Your task to perform on an android device: Empty the shopping cart on walmart. Add "acer nitro" to the cart on walmart, then select checkout. Image 0: 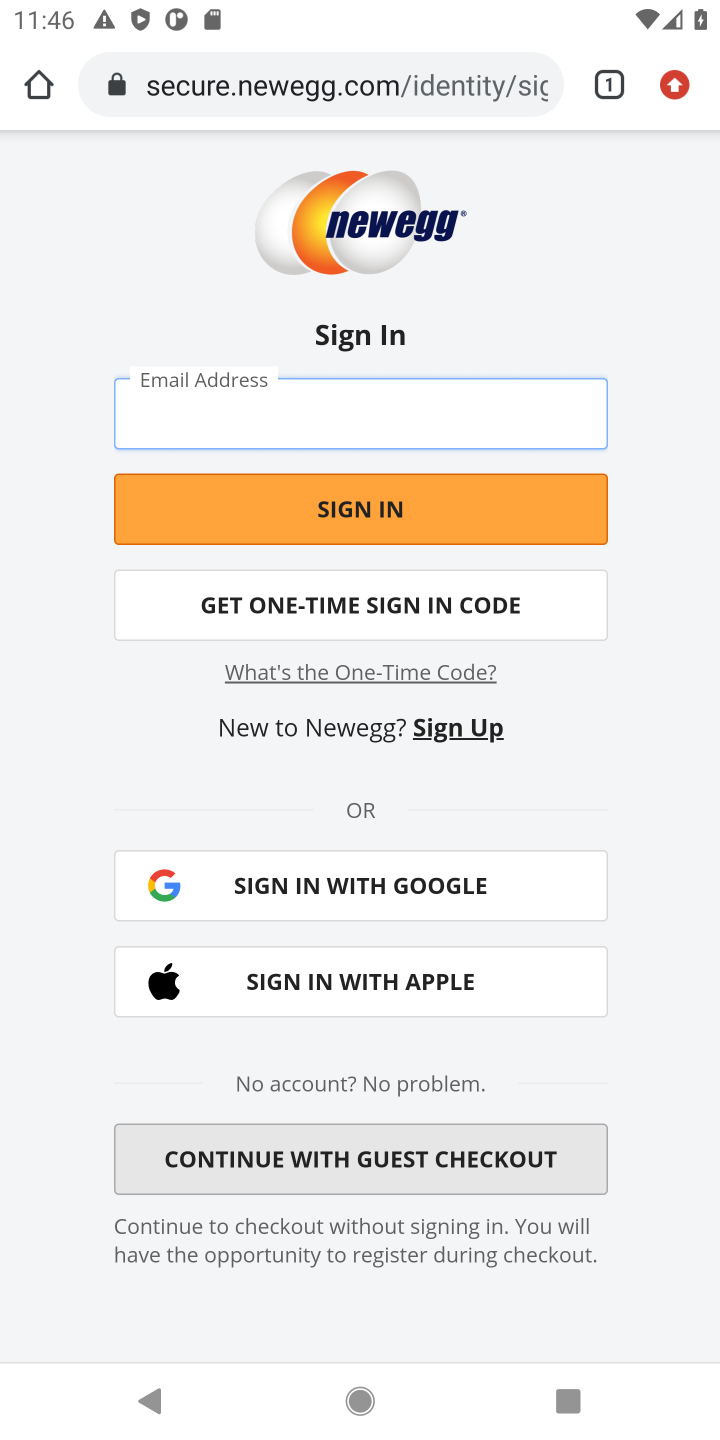
Step 0: press home button
Your task to perform on an android device: Empty the shopping cart on walmart. Add "acer nitro" to the cart on walmart, then select checkout. Image 1: 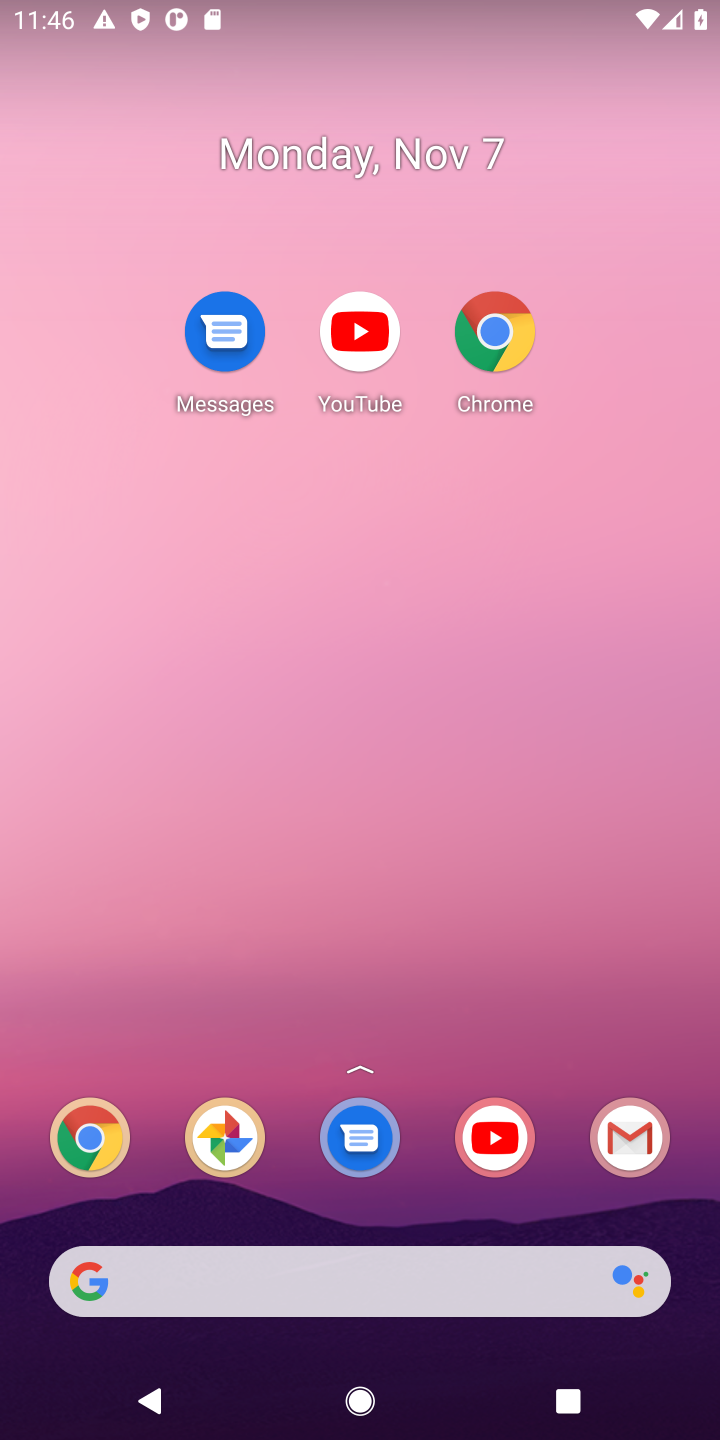
Step 1: drag from (421, 1194) to (327, 240)
Your task to perform on an android device: Empty the shopping cart on walmart. Add "acer nitro" to the cart on walmart, then select checkout. Image 2: 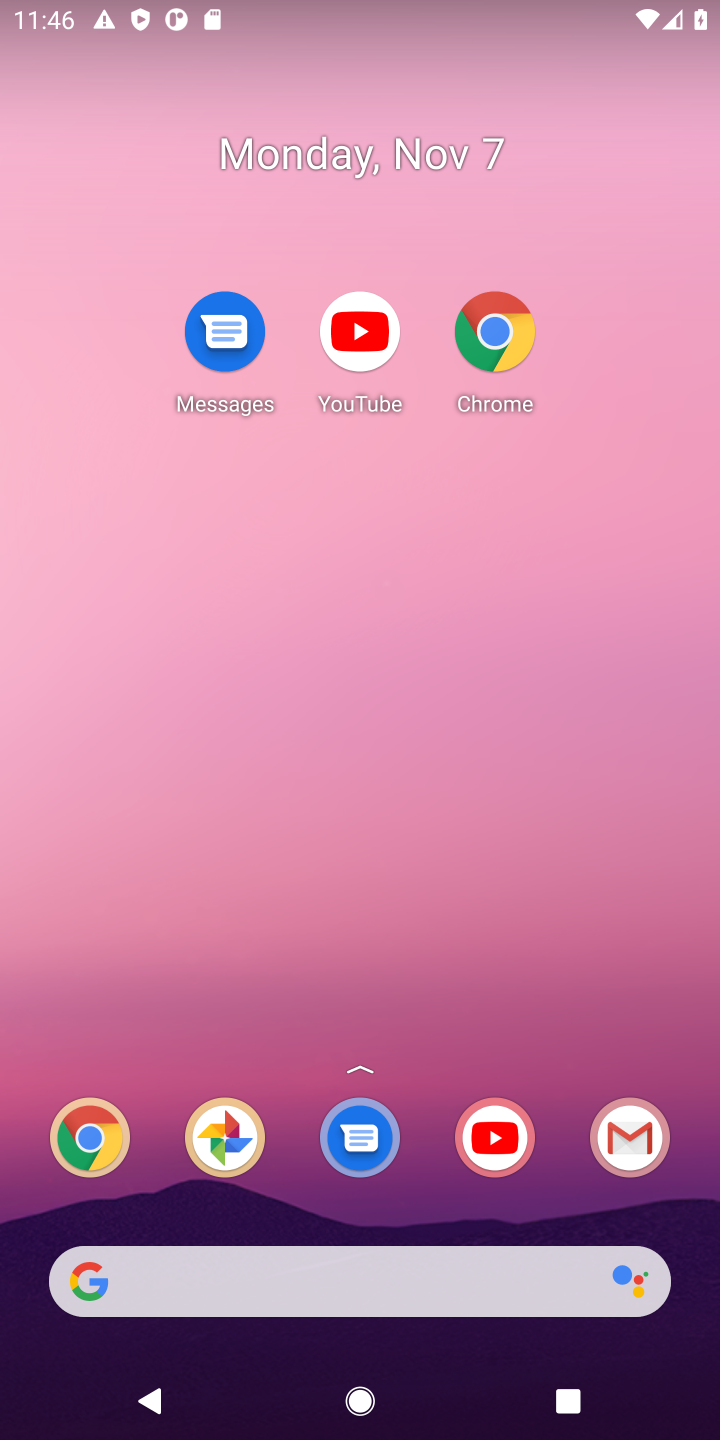
Step 2: drag from (418, 1199) to (529, 429)
Your task to perform on an android device: Empty the shopping cart on walmart. Add "acer nitro" to the cart on walmart, then select checkout. Image 3: 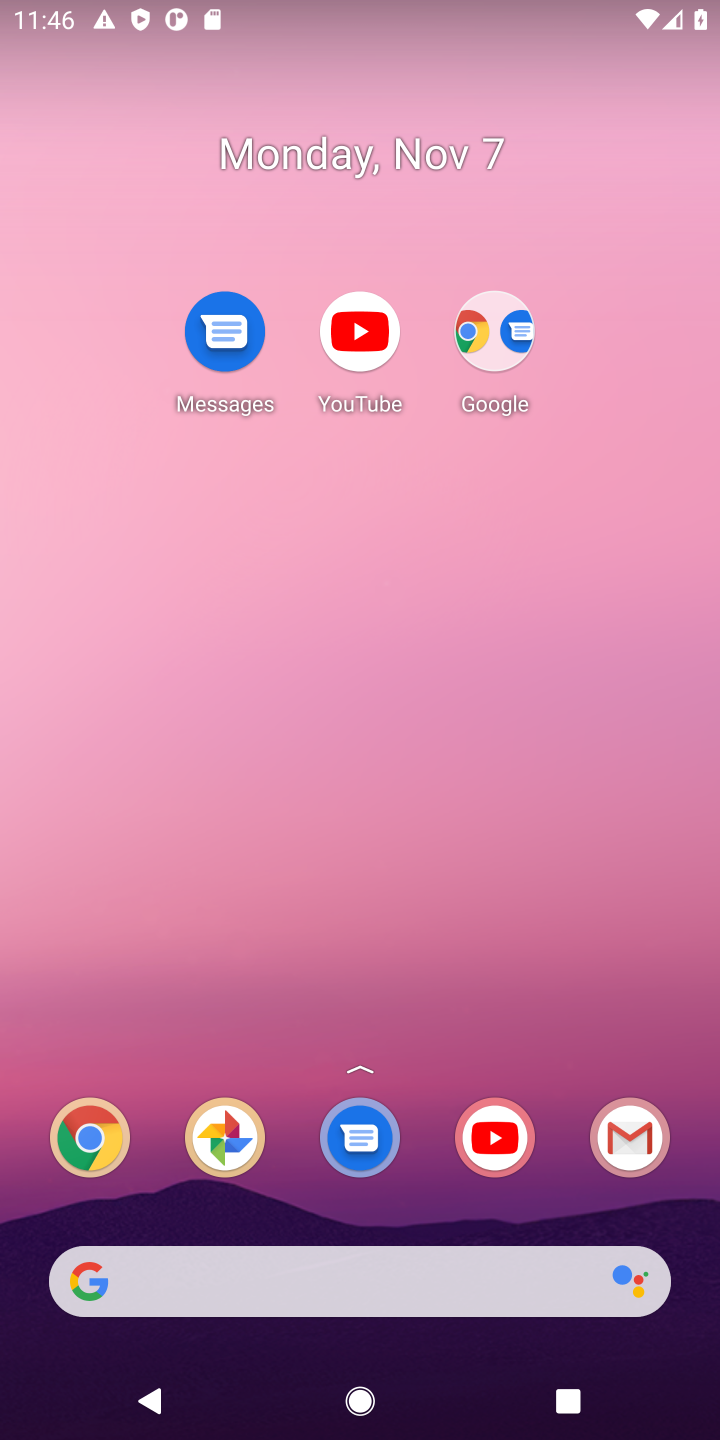
Step 3: drag from (369, 1245) to (400, 411)
Your task to perform on an android device: Empty the shopping cart on walmart. Add "acer nitro" to the cart on walmart, then select checkout. Image 4: 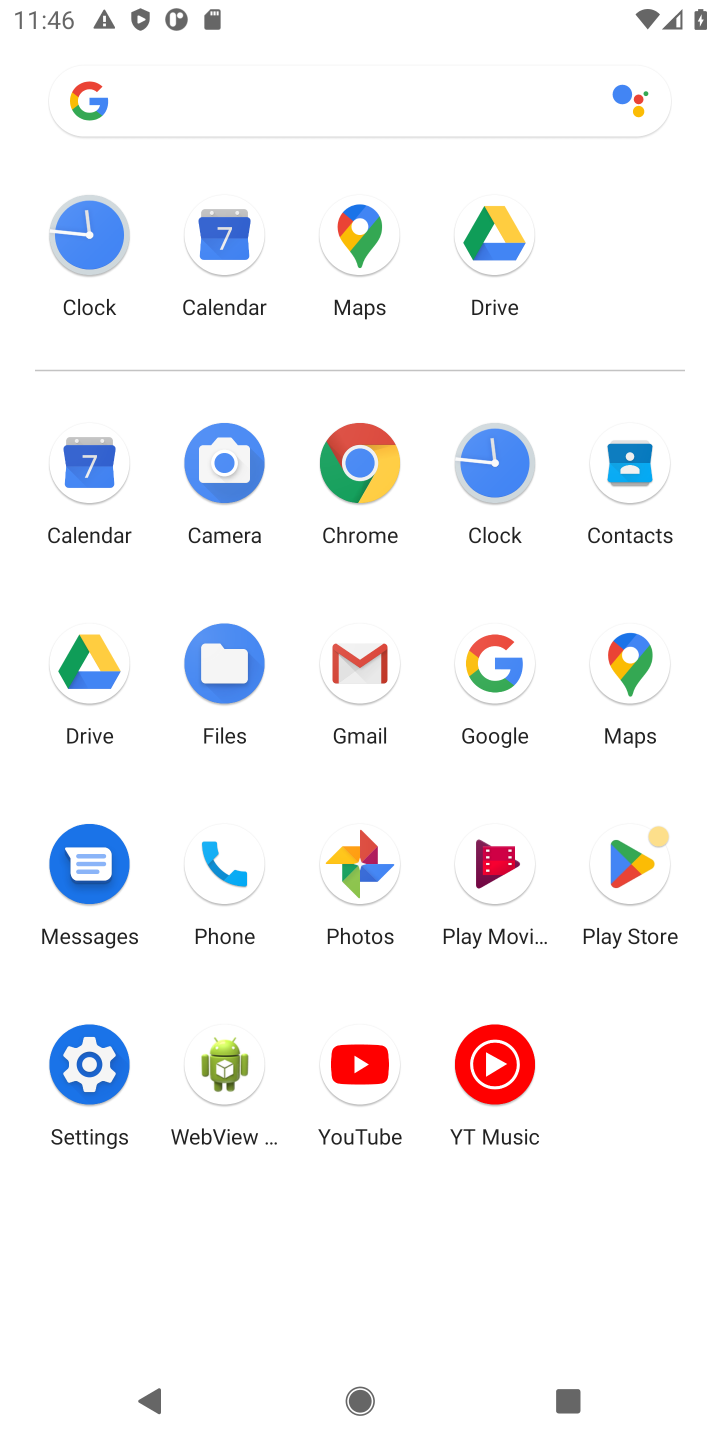
Step 4: click (367, 463)
Your task to perform on an android device: Empty the shopping cart on walmart. Add "acer nitro" to the cart on walmart, then select checkout. Image 5: 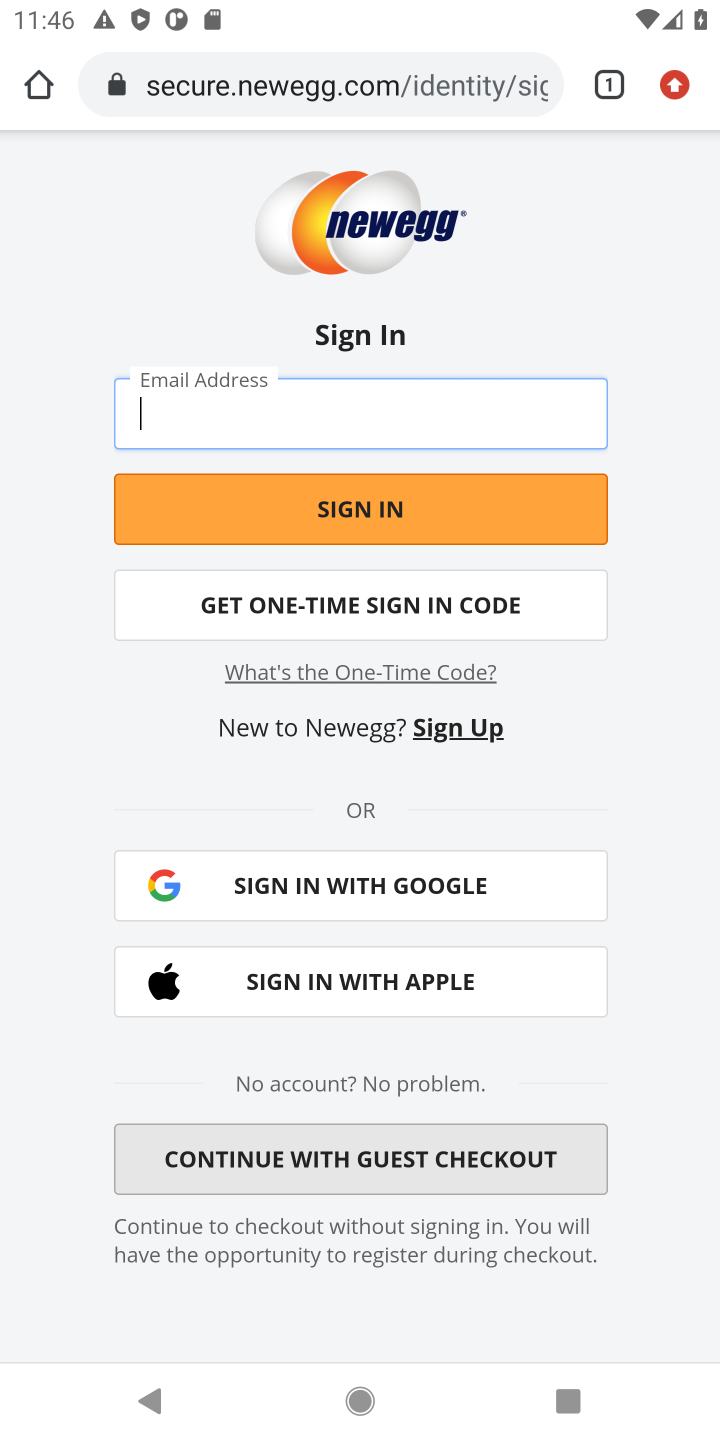
Step 5: click (347, 76)
Your task to perform on an android device: Empty the shopping cart on walmart. Add "acer nitro" to the cart on walmart, then select checkout. Image 6: 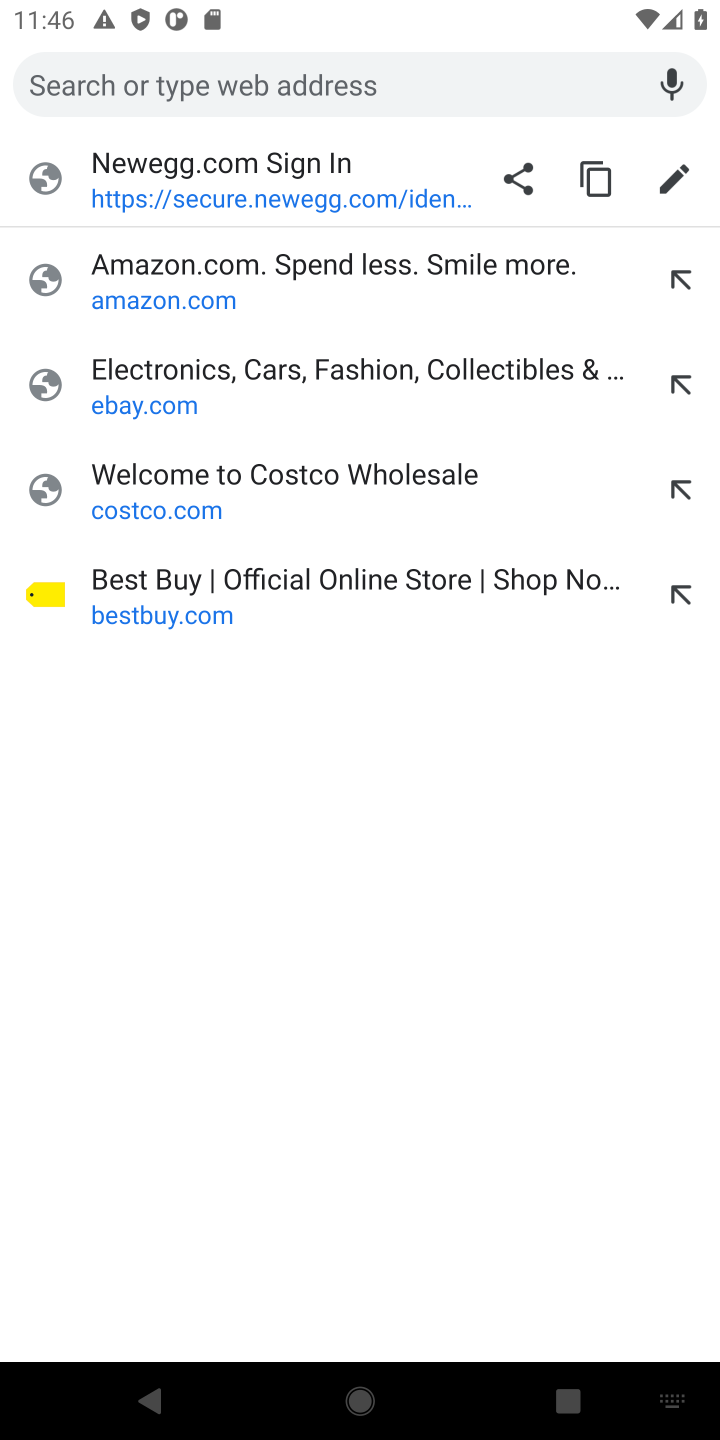
Step 6: type "walmart.com"
Your task to perform on an android device: Empty the shopping cart on walmart. Add "acer nitro" to the cart on walmart, then select checkout. Image 7: 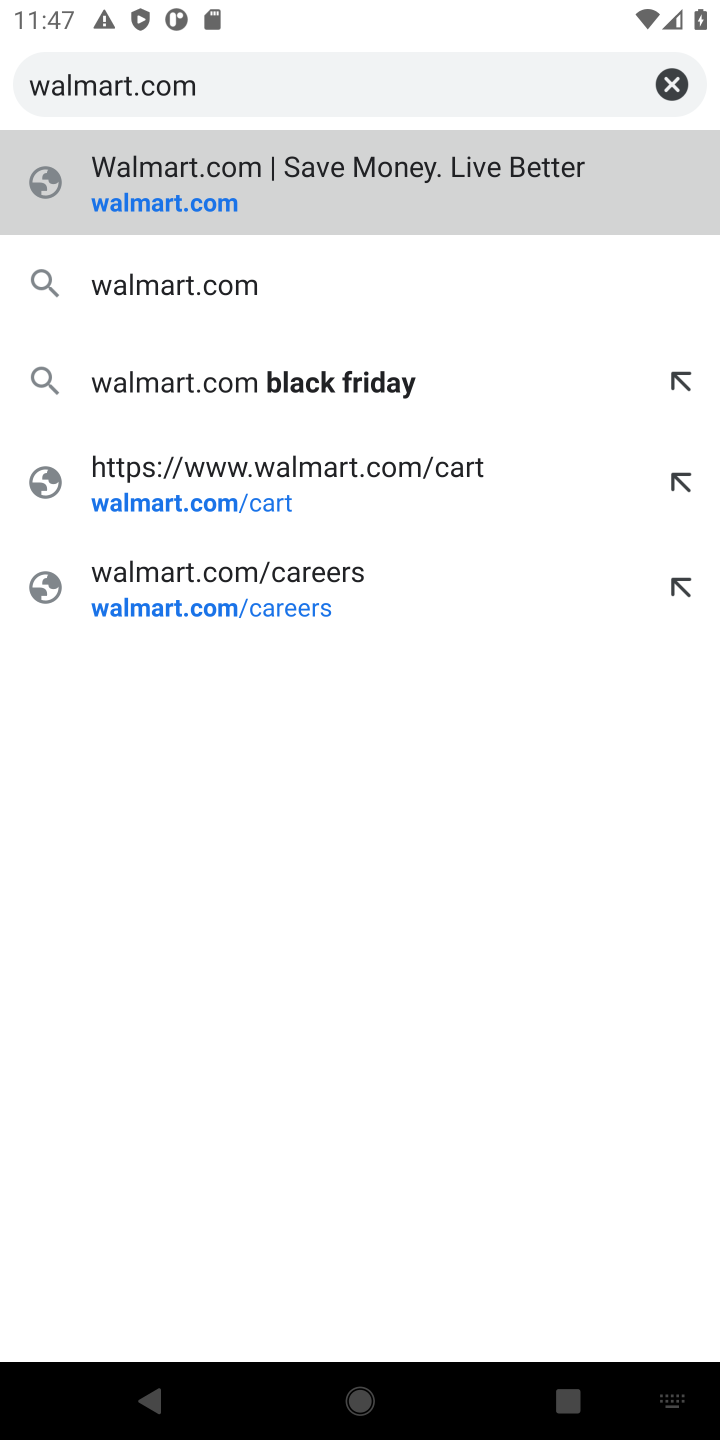
Step 7: press enter
Your task to perform on an android device: Empty the shopping cart on walmart. Add "acer nitro" to the cart on walmart, then select checkout. Image 8: 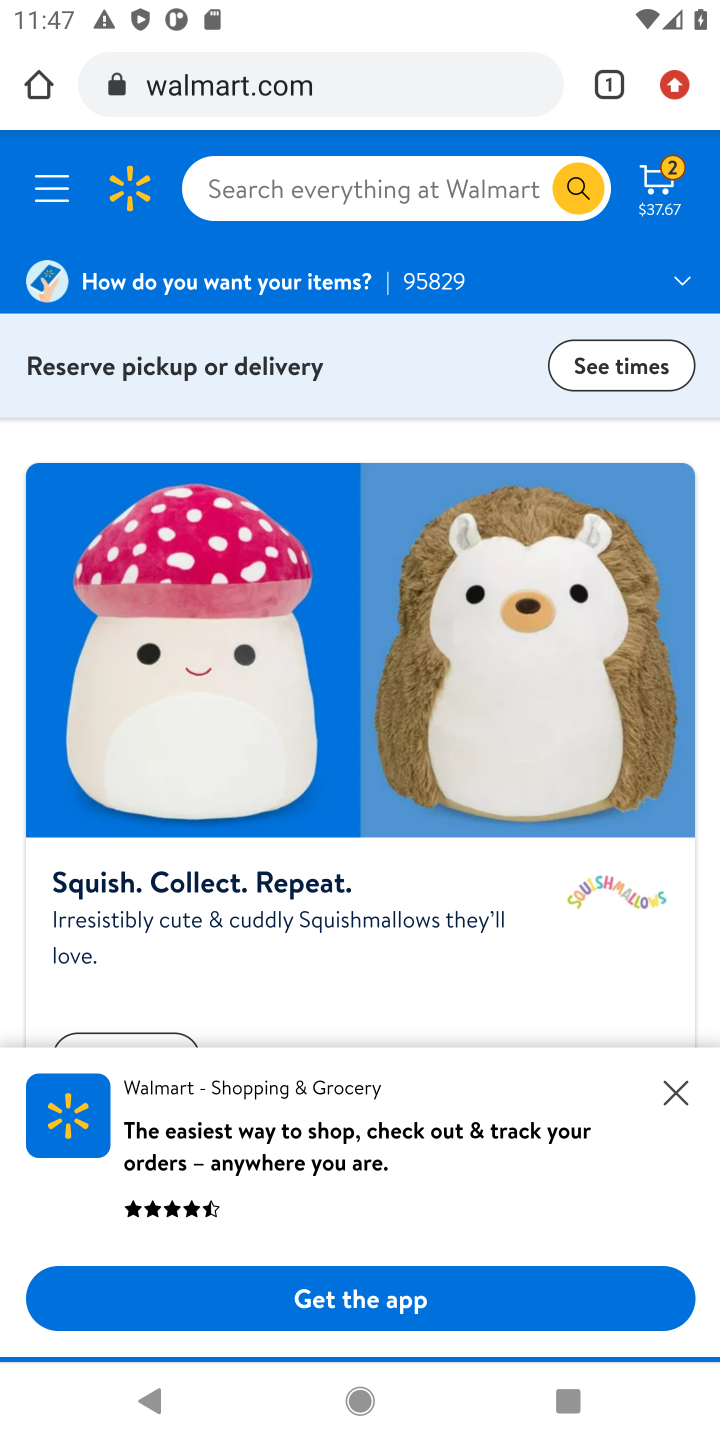
Step 8: click (662, 189)
Your task to perform on an android device: Empty the shopping cart on walmart. Add "acer nitro" to the cart on walmart, then select checkout. Image 9: 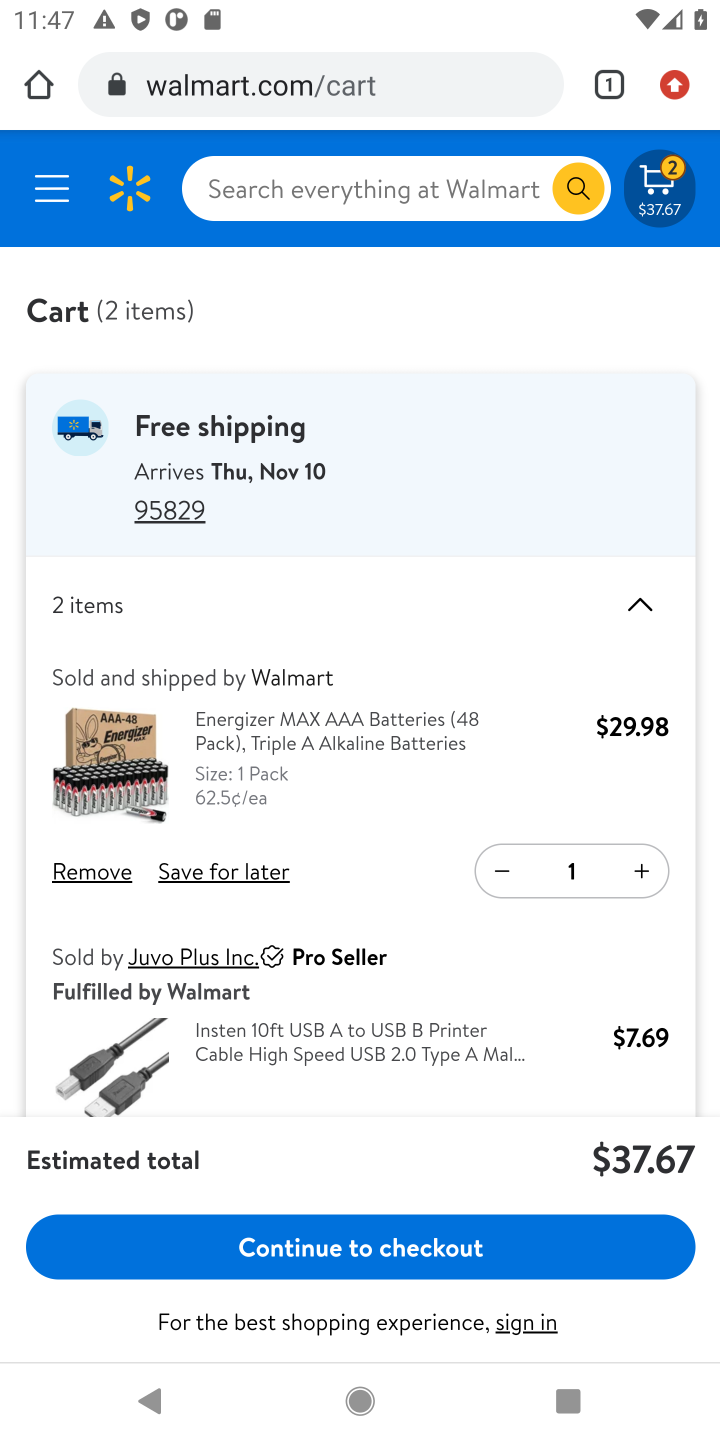
Step 9: drag from (444, 976) to (449, 897)
Your task to perform on an android device: Empty the shopping cart on walmart. Add "acer nitro" to the cart on walmart, then select checkout. Image 10: 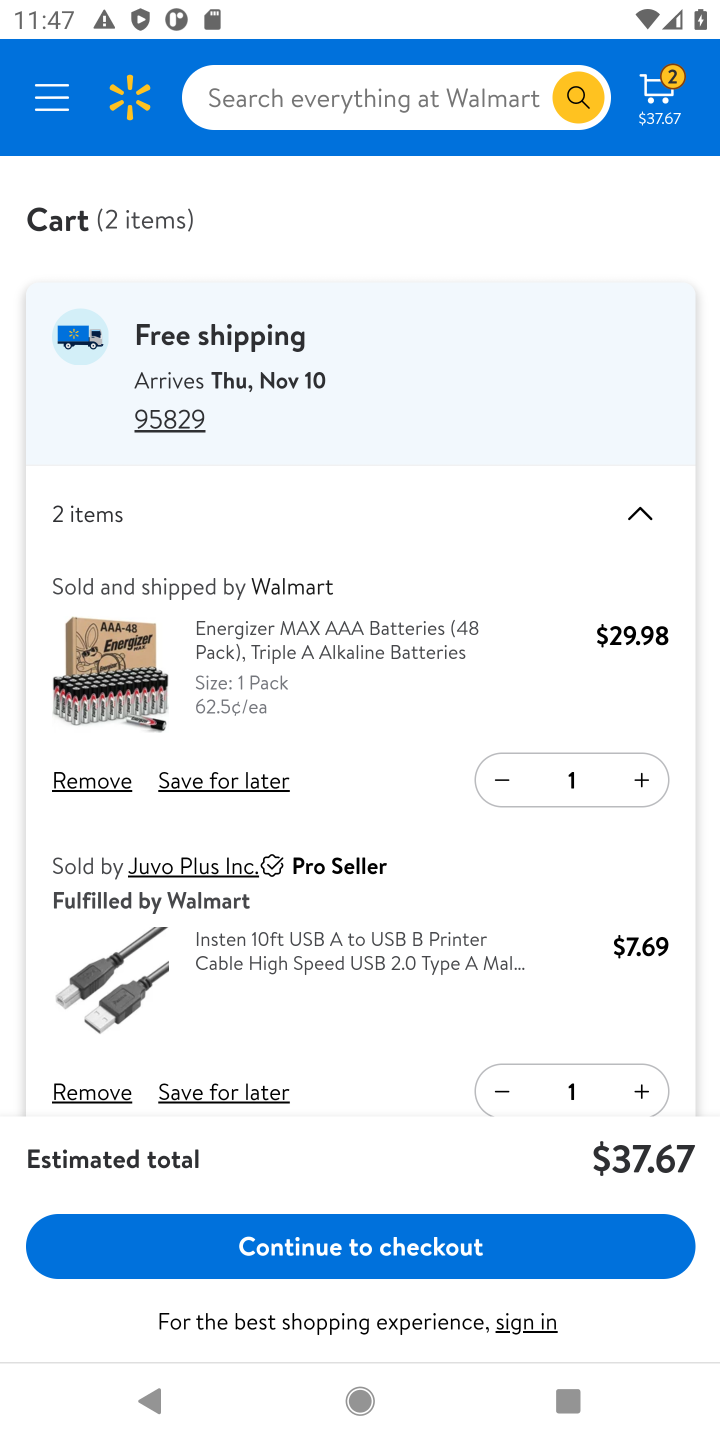
Step 10: click (76, 773)
Your task to perform on an android device: Empty the shopping cart on walmart. Add "acer nitro" to the cart on walmart, then select checkout. Image 11: 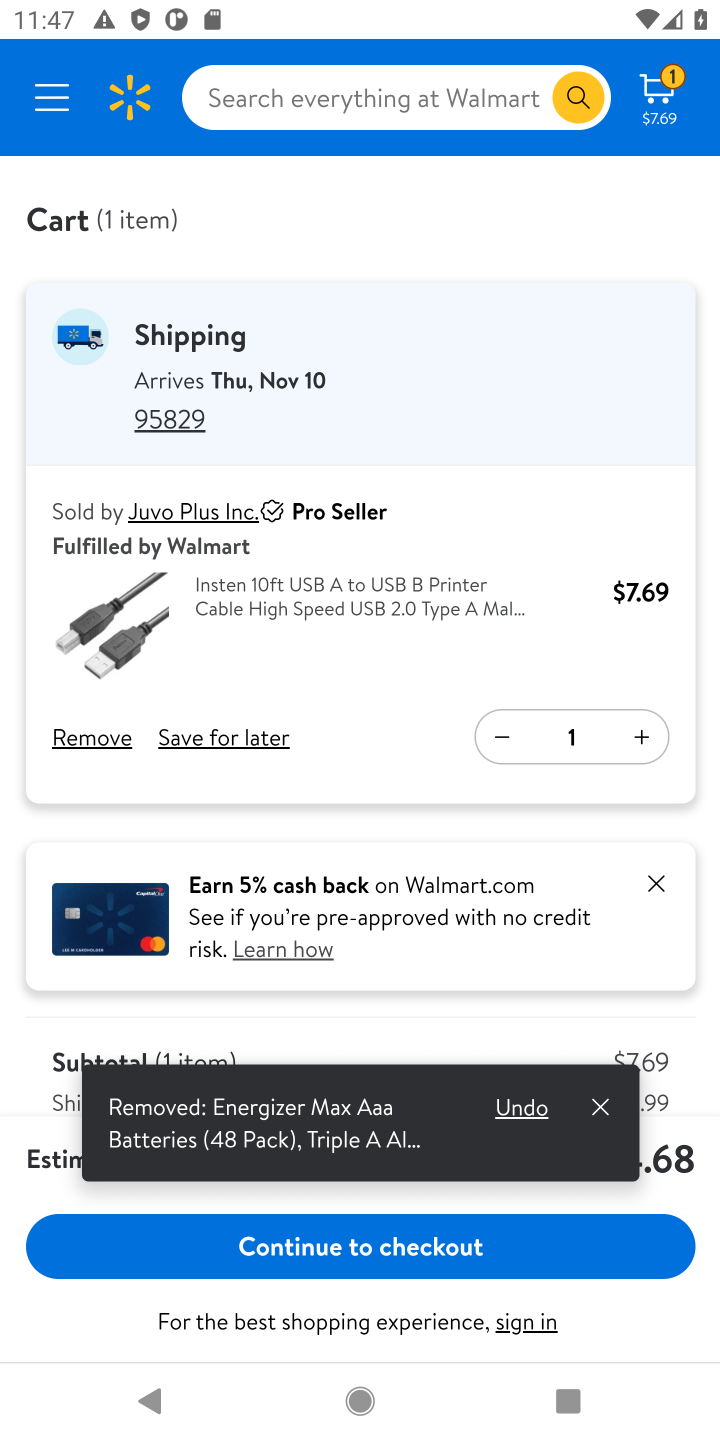
Step 11: click (84, 737)
Your task to perform on an android device: Empty the shopping cart on walmart. Add "acer nitro" to the cart on walmart, then select checkout. Image 12: 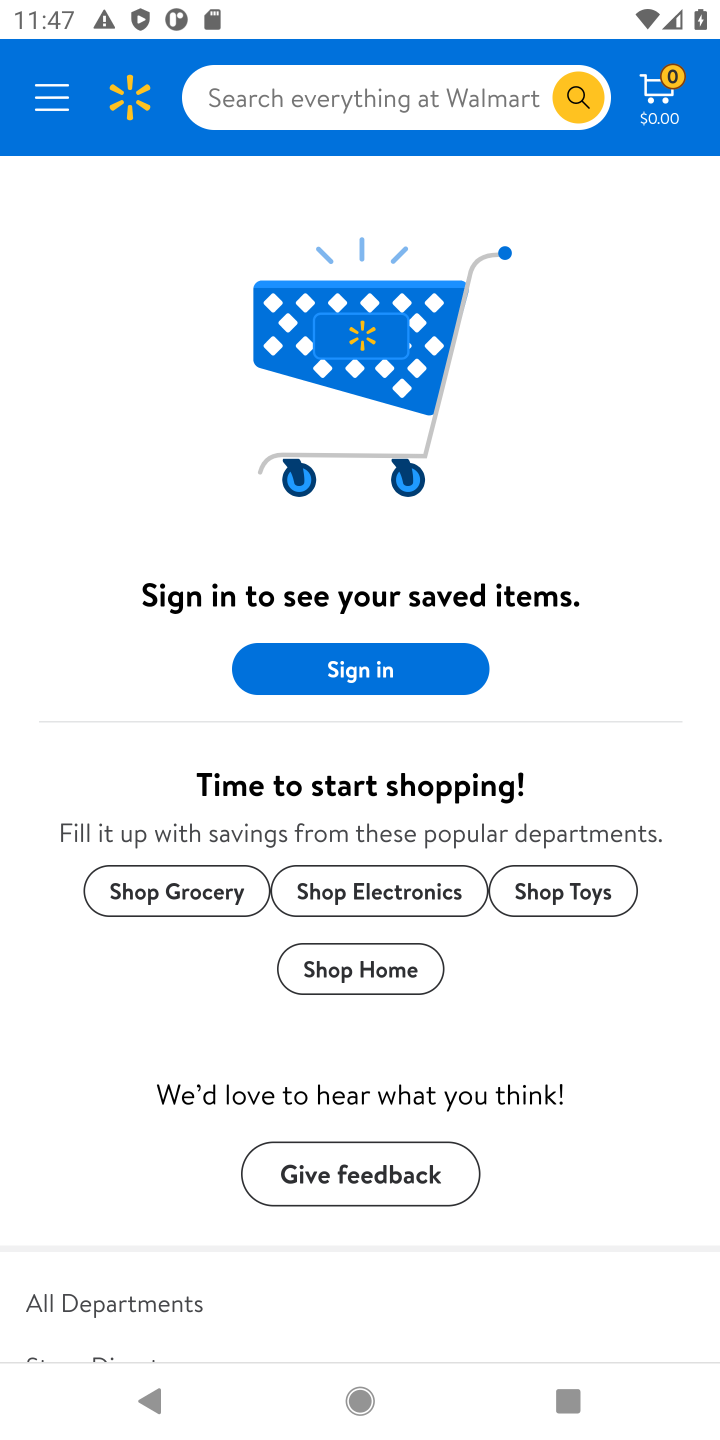
Step 12: click (386, 103)
Your task to perform on an android device: Empty the shopping cart on walmart. Add "acer nitro" to the cart on walmart, then select checkout. Image 13: 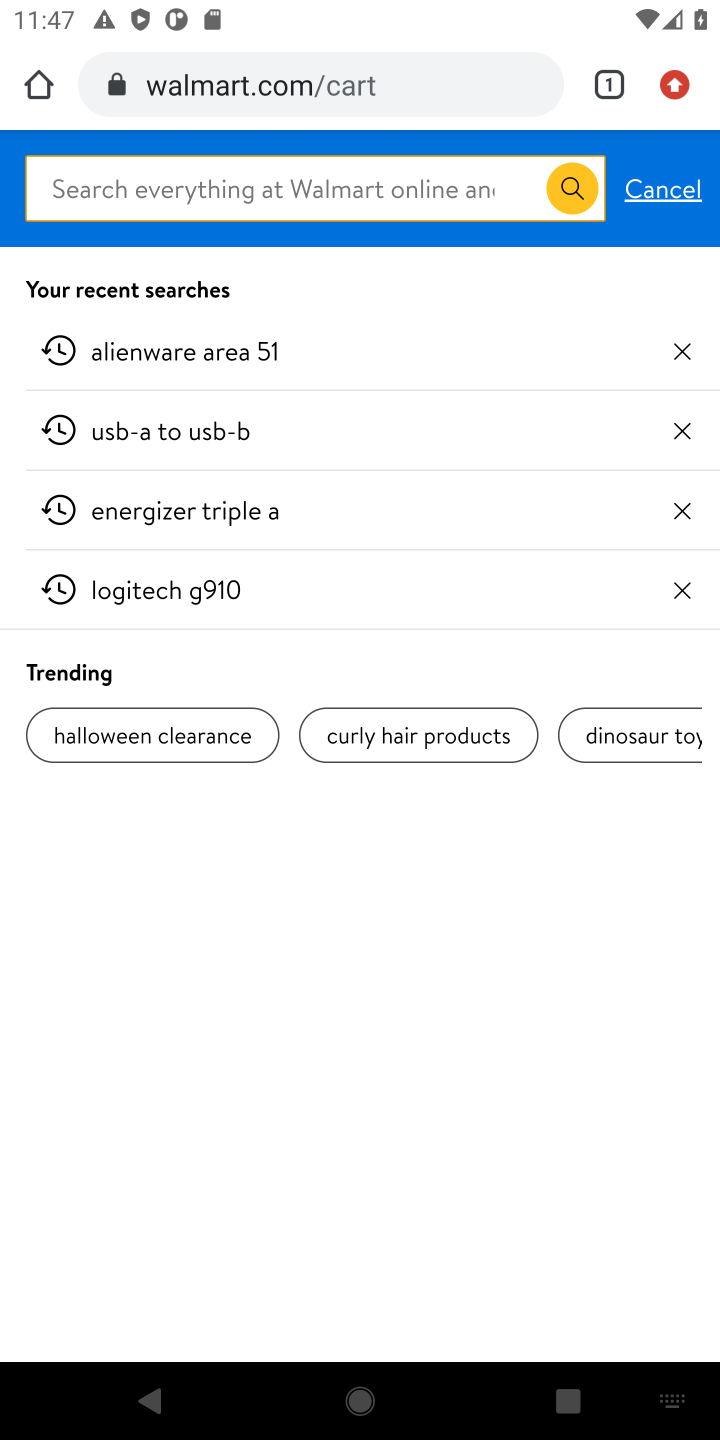
Step 13: type "acer nitro"
Your task to perform on an android device: Empty the shopping cart on walmart. Add "acer nitro" to the cart on walmart, then select checkout. Image 14: 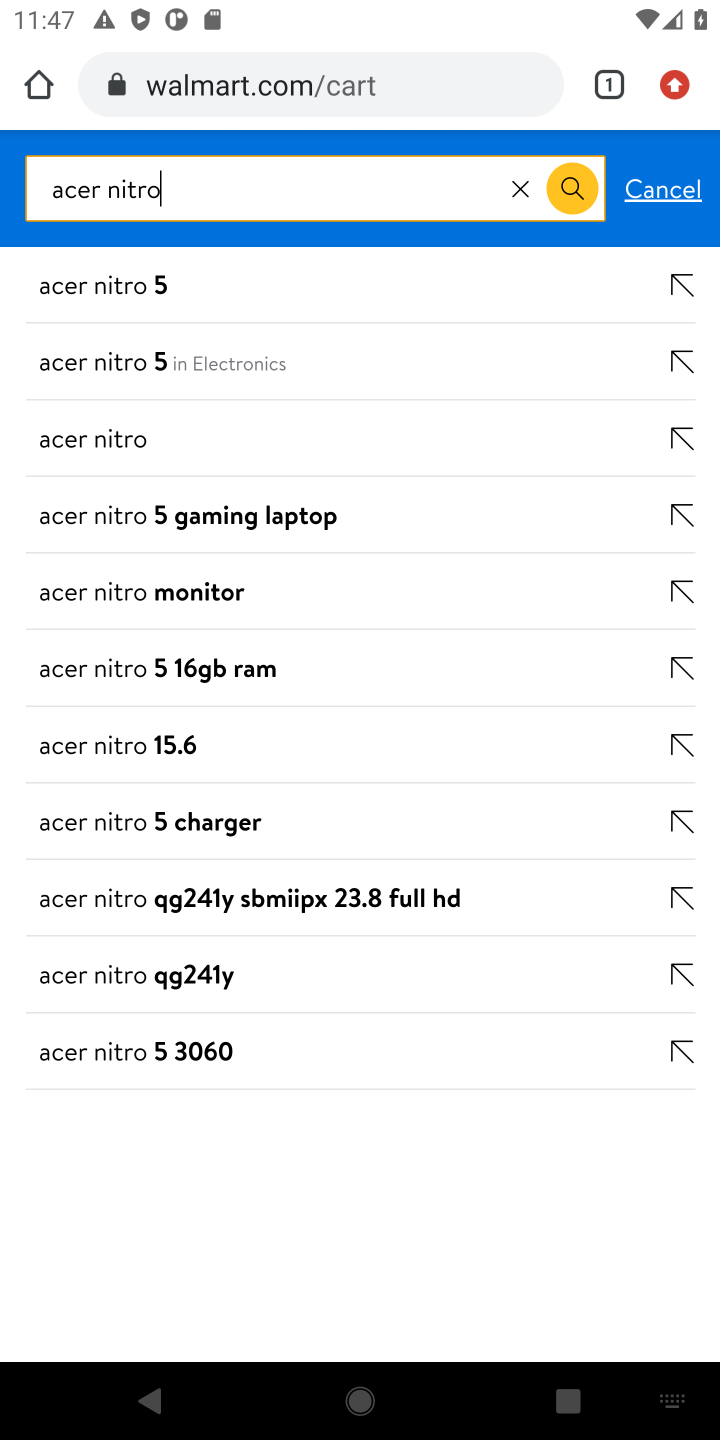
Step 14: press enter
Your task to perform on an android device: Empty the shopping cart on walmart. Add "acer nitro" to the cart on walmart, then select checkout. Image 15: 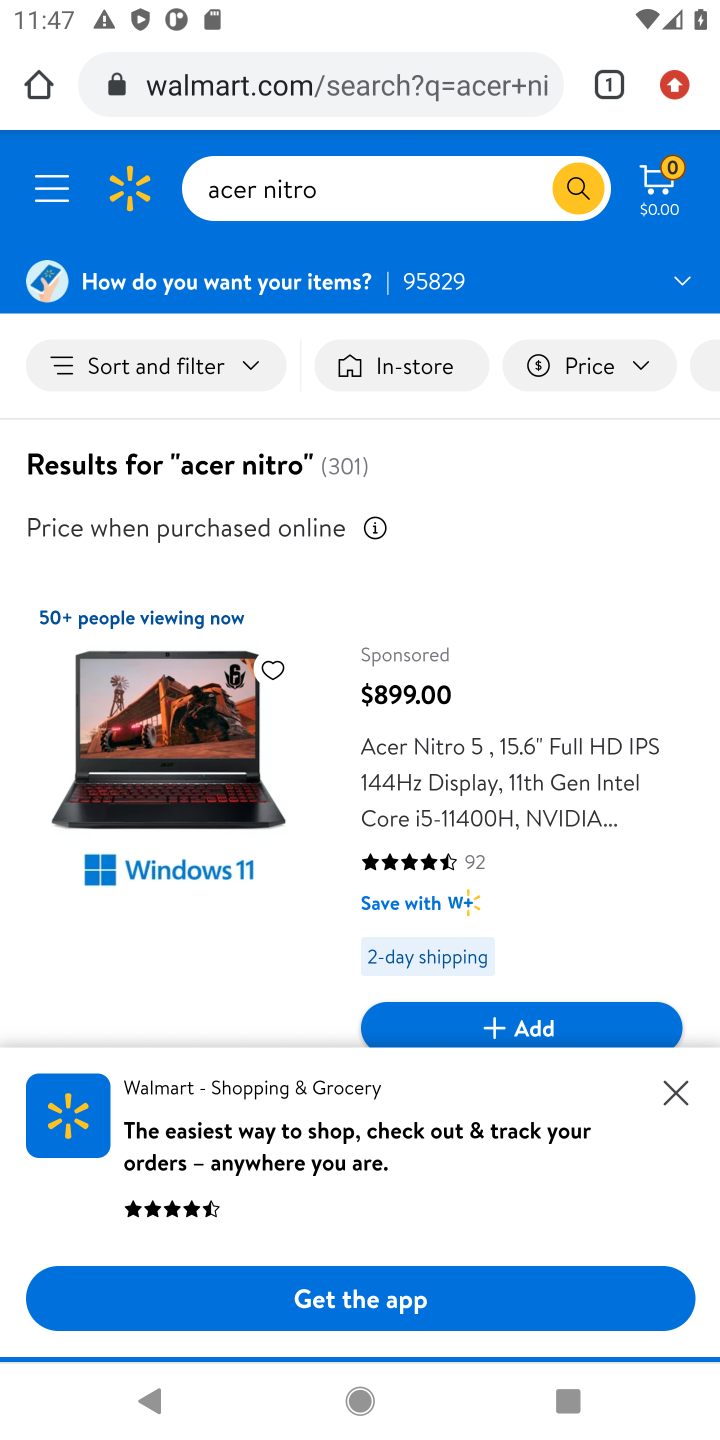
Step 15: drag from (433, 945) to (537, 224)
Your task to perform on an android device: Empty the shopping cart on walmart. Add "acer nitro" to the cart on walmart, then select checkout. Image 16: 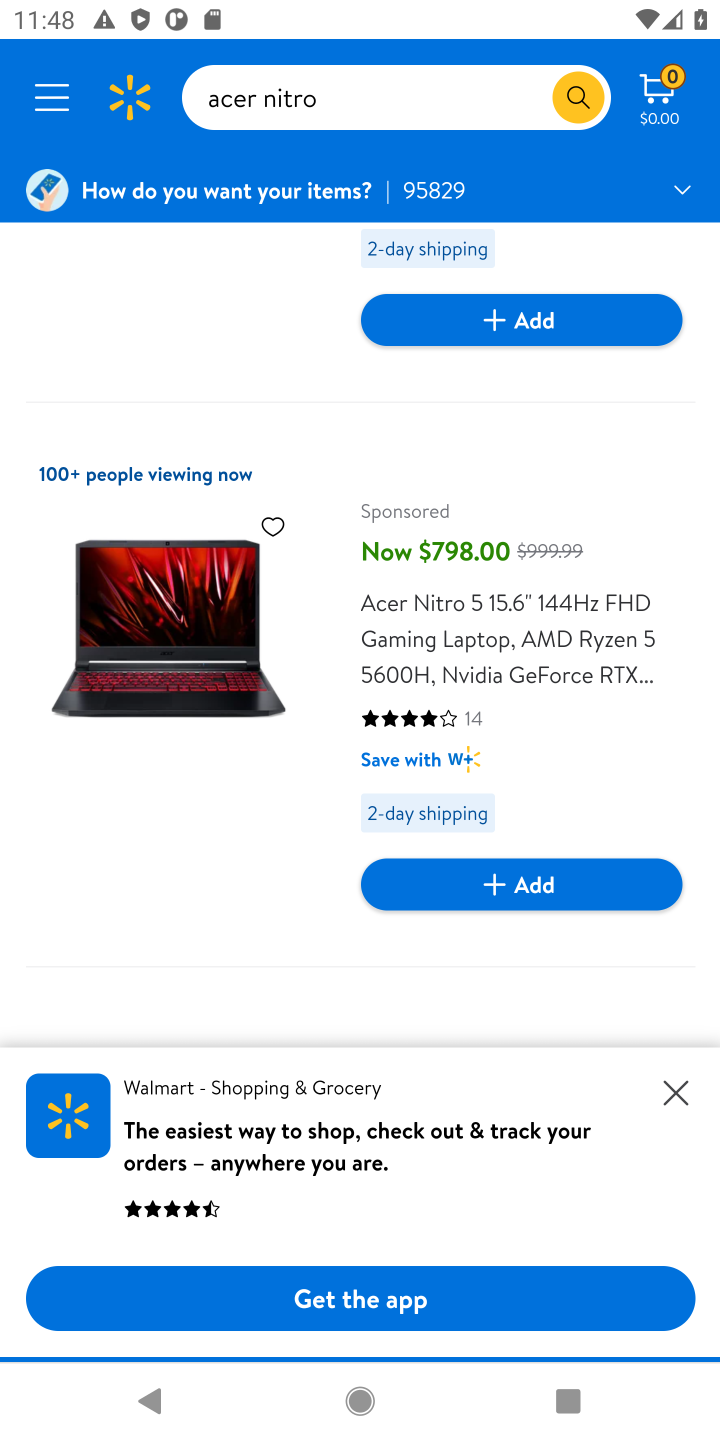
Step 16: drag from (441, 1015) to (319, 245)
Your task to perform on an android device: Empty the shopping cart on walmart. Add "acer nitro" to the cart on walmart, then select checkout. Image 17: 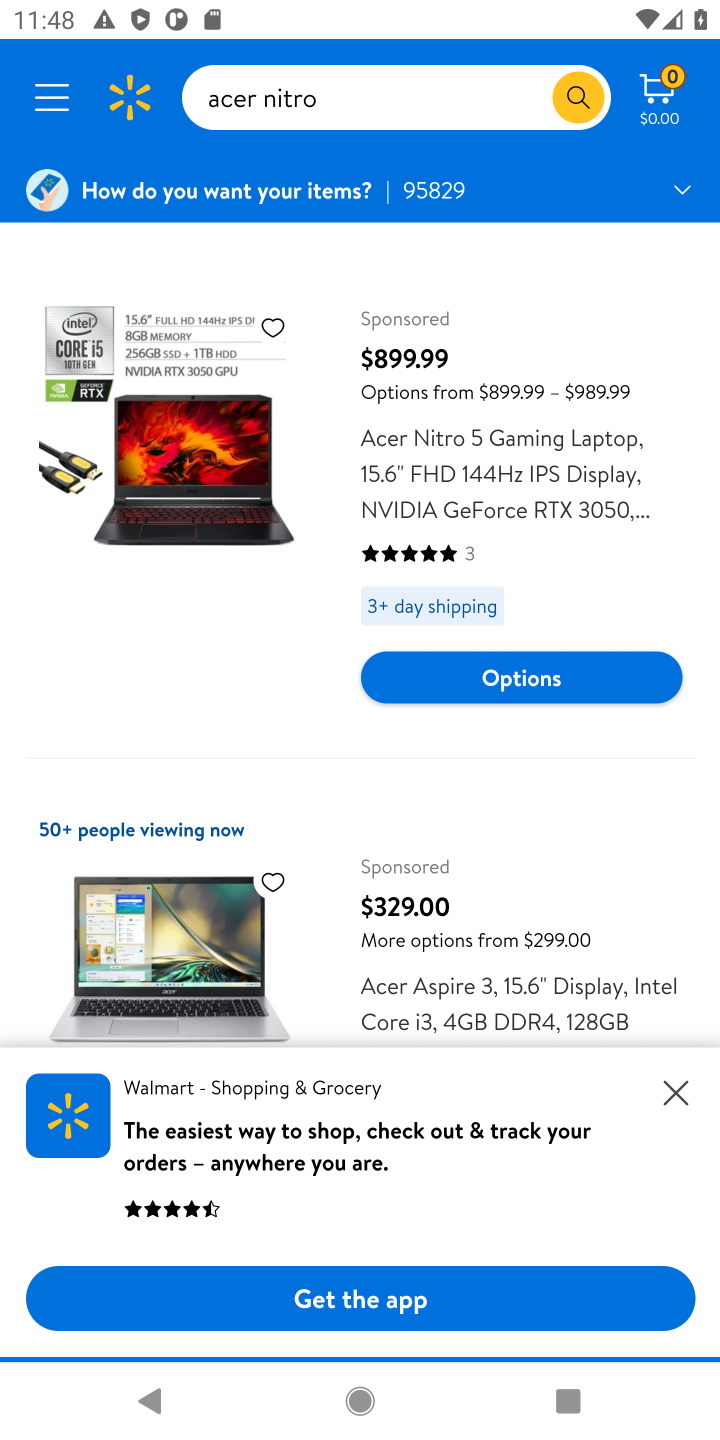
Step 17: drag from (384, 959) to (331, 379)
Your task to perform on an android device: Empty the shopping cart on walmart. Add "acer nitro" to the cart on walmart, then select checkout. Image 18: 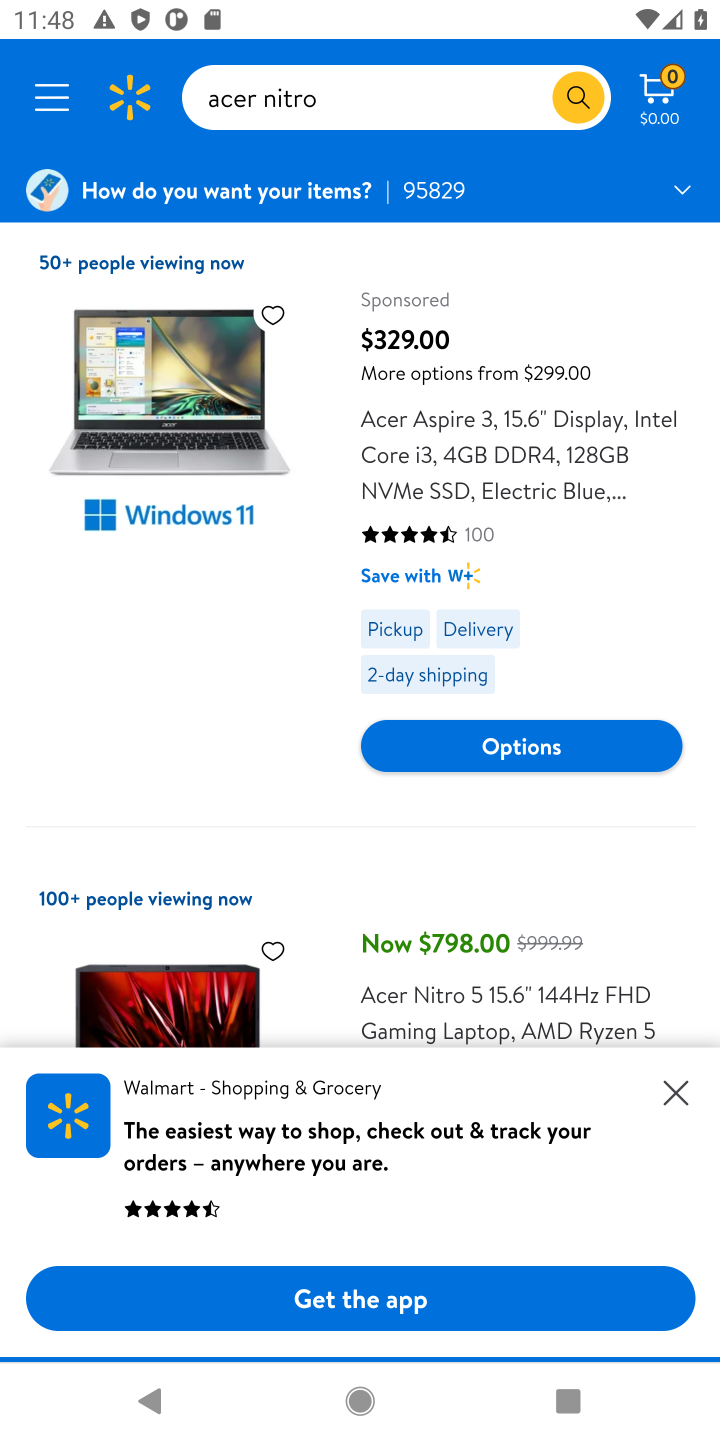
Step 18: drag from (374, 1039) to (416, 296)
Your task to perform on an android device: Empty the shopping cart on walmart. Add "acer nitro" to the cart on walmart, then select checkout. Image 19: 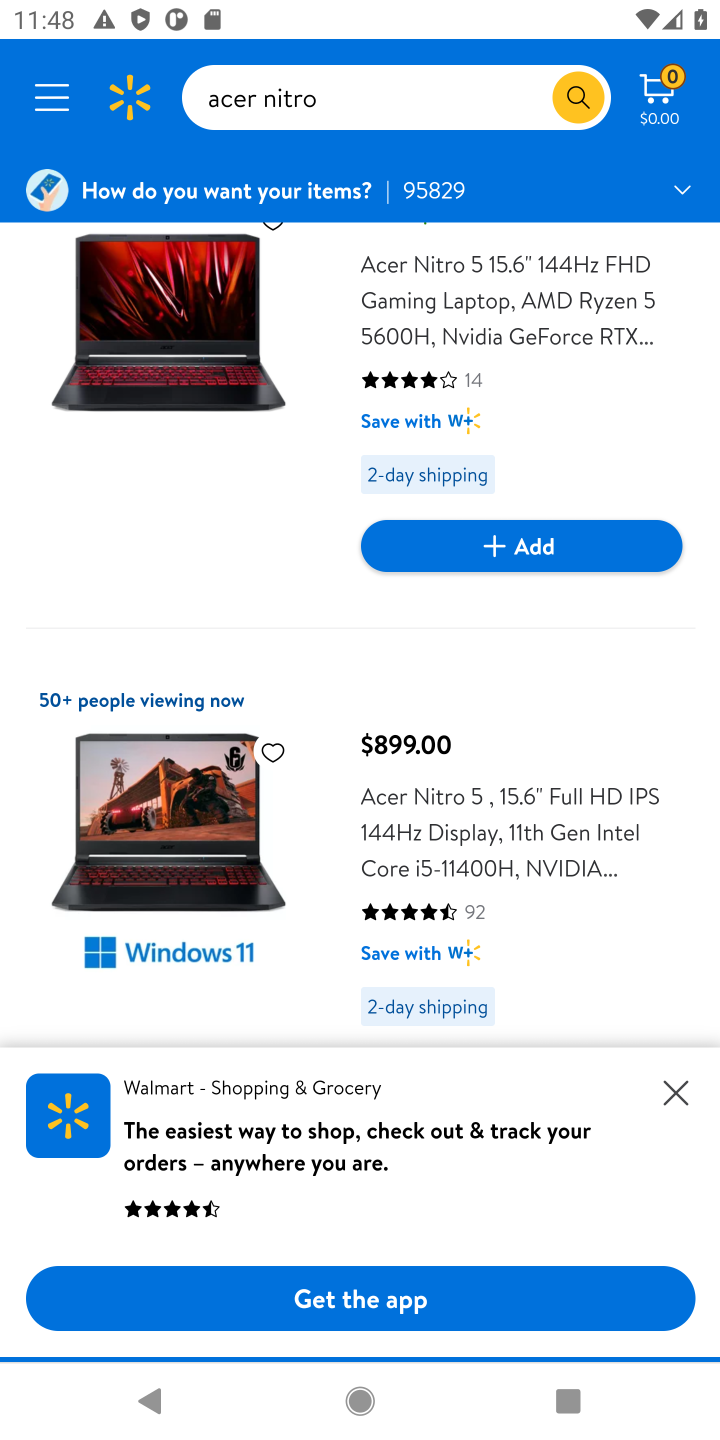
Step 19: drag from (535, 642) to (586, 914)
Your task to perform on an android device: Empty the shopping cart on walmart. Add "acer nitro" to the cart on walmart, then select checkout. Image 20: 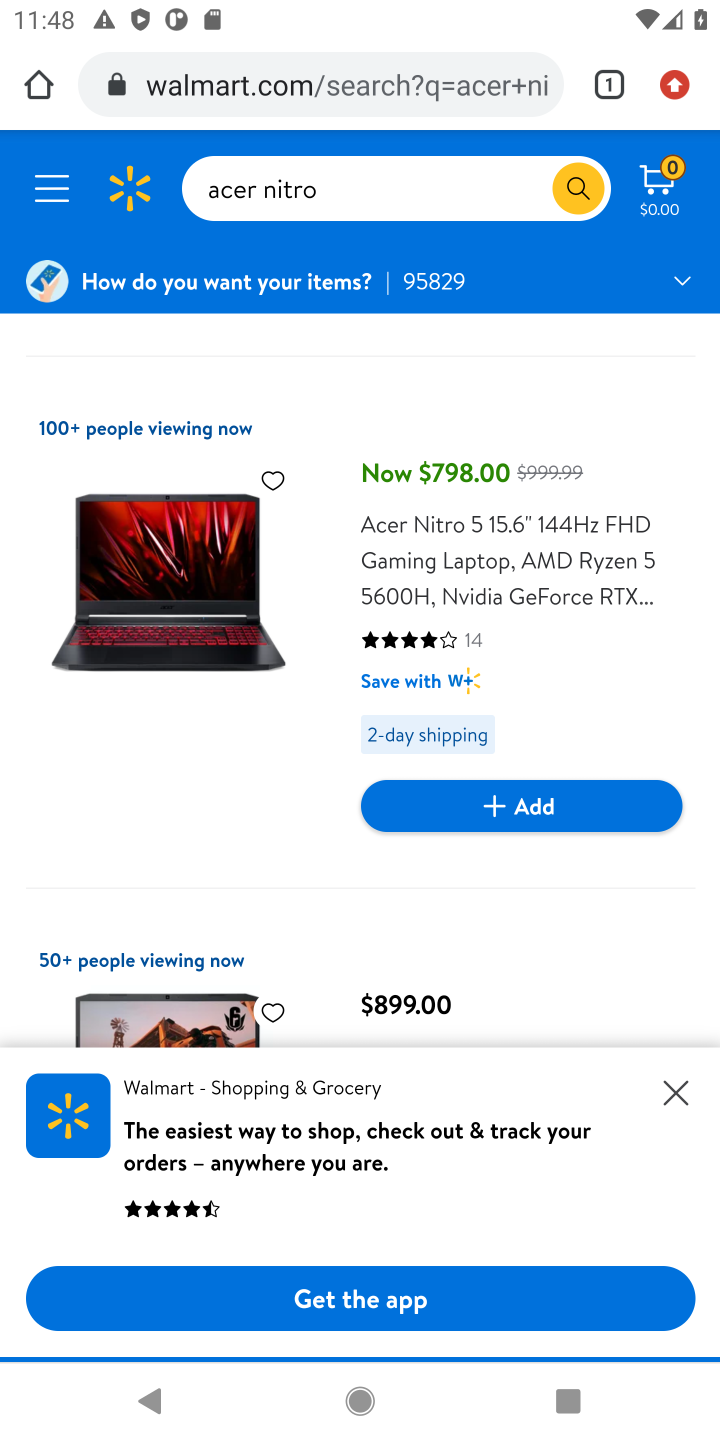
Step 20: click (571, 809)
Your task to perform on an android device: Empty the shopping cart on walmart. Add "acer nitro" to the cart on walmart, then select checkout. Image 21: 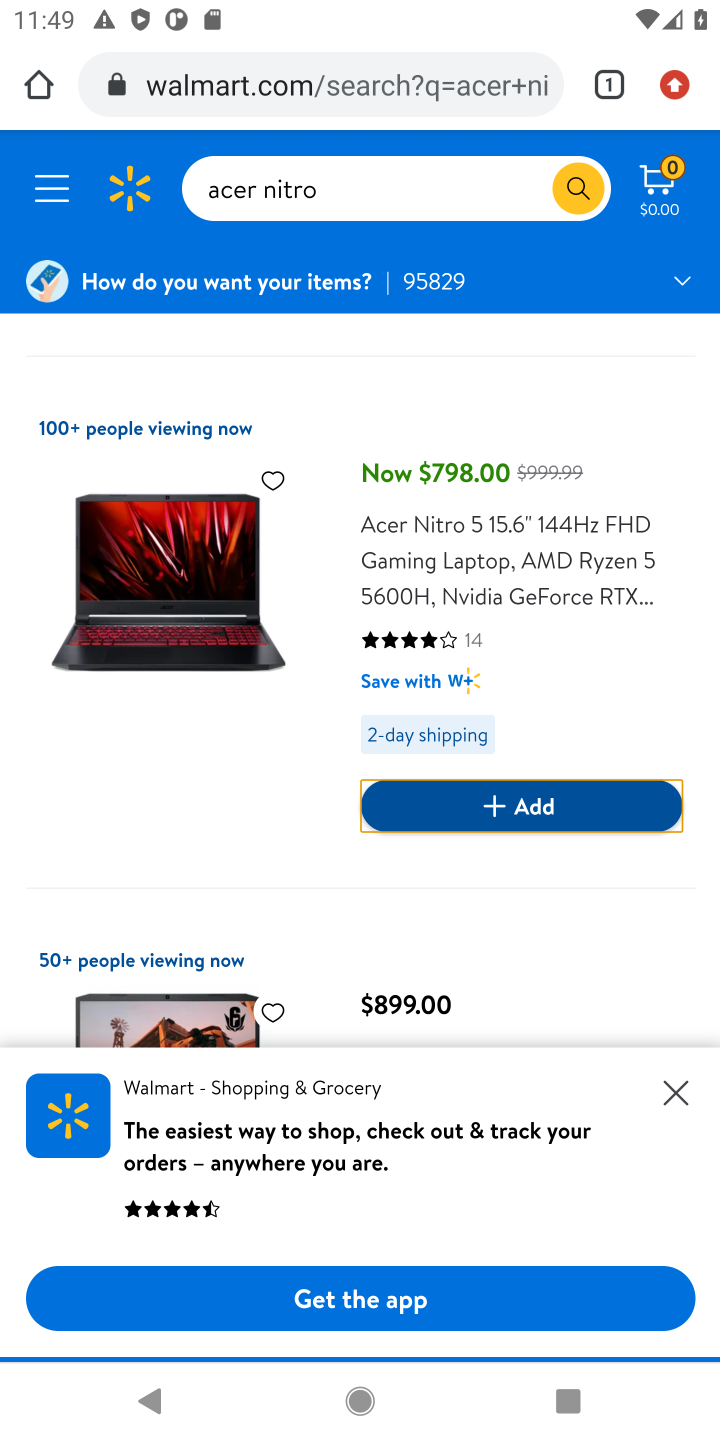
Step 21: click (549, 808)
Your task to perform on an android device: Empty the shopping cart on walmart. Add "acer nitro" to the cart on walmart, then select checkout. Image 22: 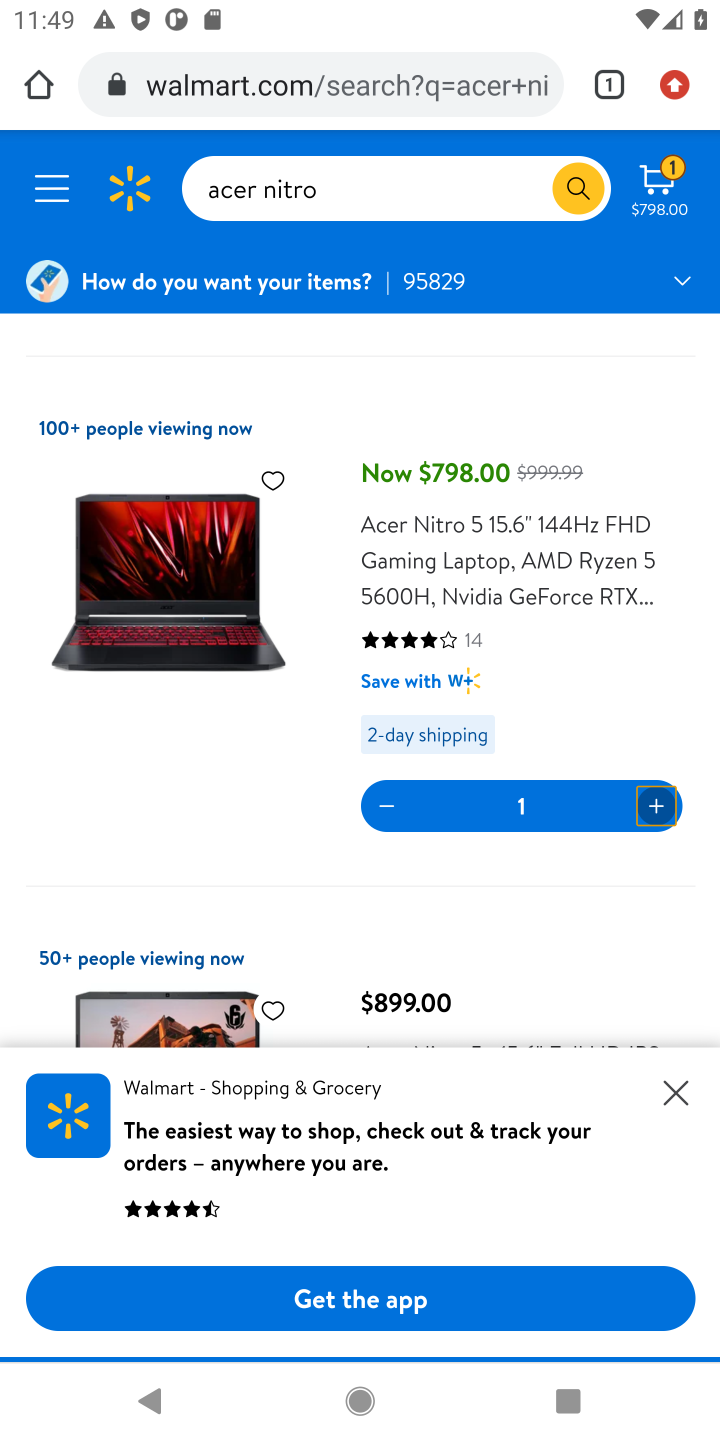
Step 22: click (651, 191)
Your task to perform on an android device: Empty the shopping cart on walmart. Add "acer nitro" to the cart on walmart, then select checkout. Image 23: 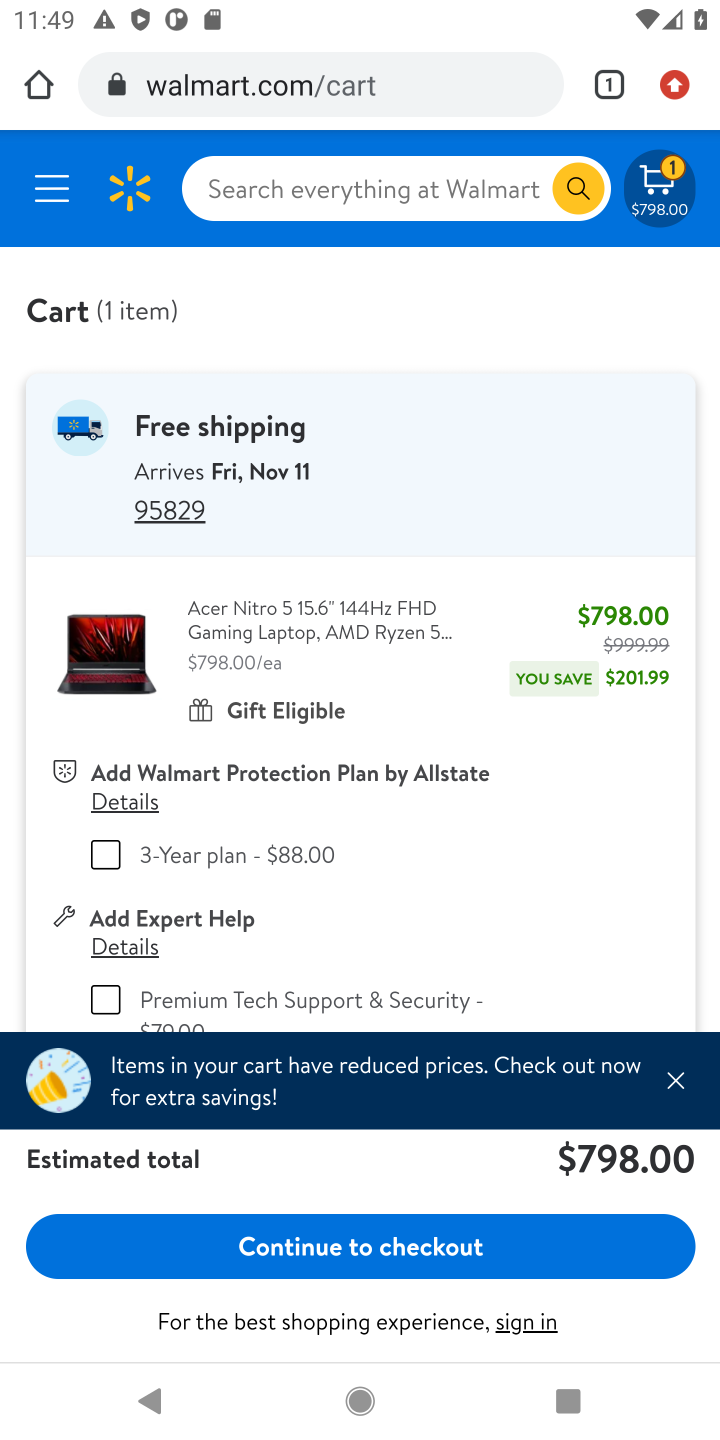
Step 23: click (314, 1247)
Your task to perform on an android device: Empty the shopping cart on walmart. Add "acer nitro" to the cart on walmart, then select checkout. Image 24: 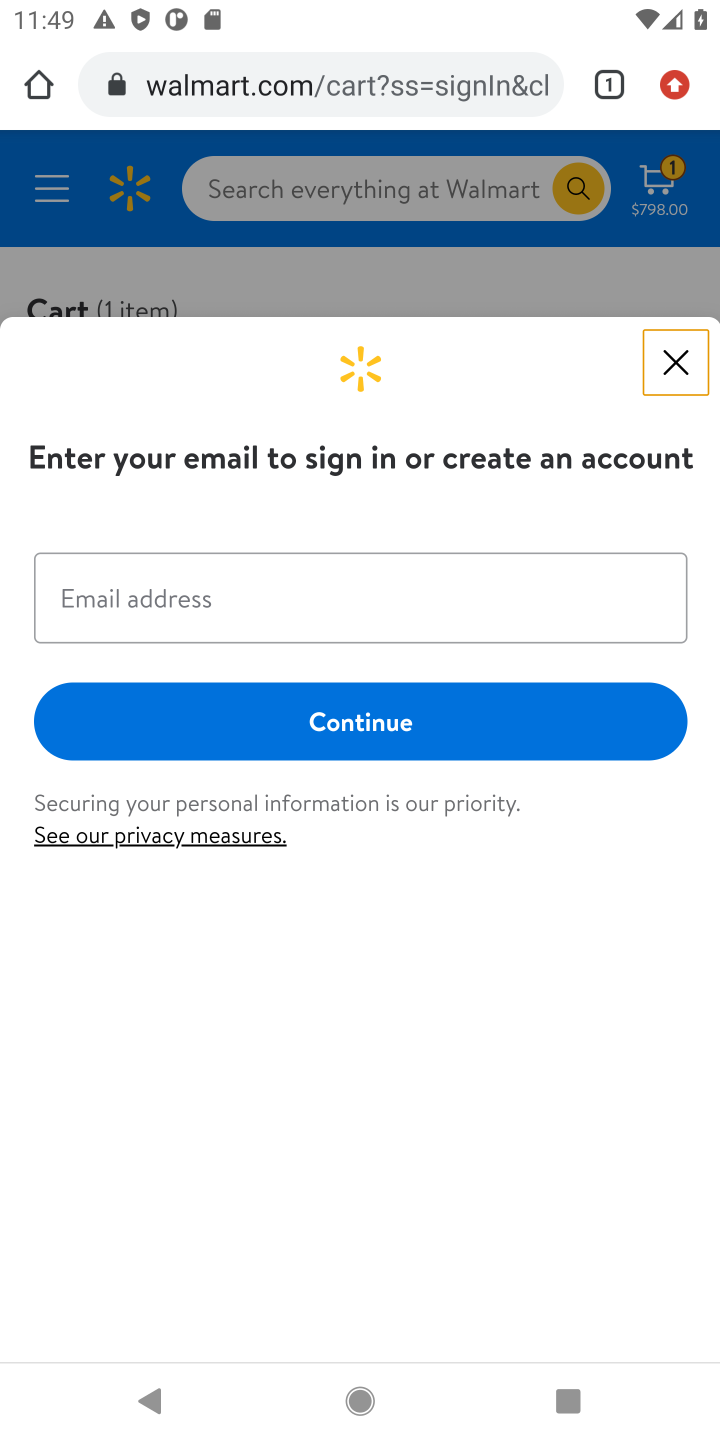
Step 24: task complete